Your task to perform on an android device: What's the weather? Image 0: 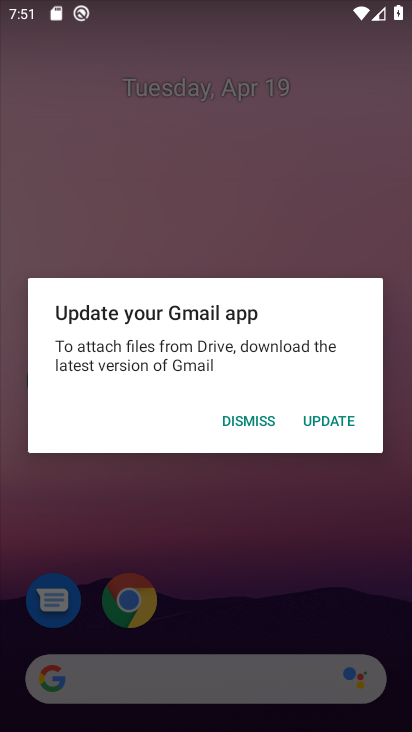
Step 0: press home button
Your task to perform on an android device: What's the weather? Image 1: 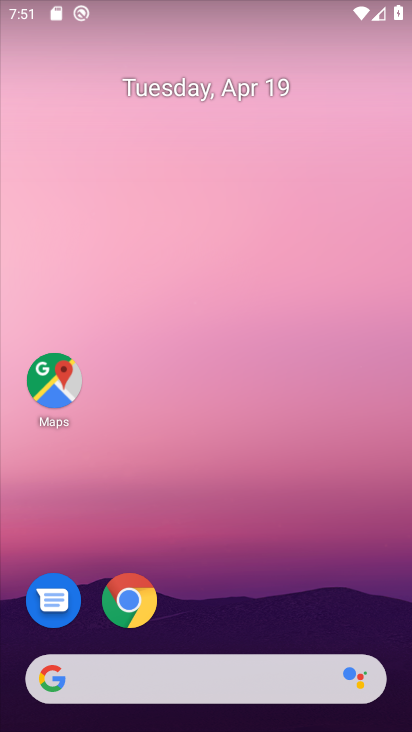
Step 1: click (215, 686)
Your task to perform on an android device: What's the weather? Image 2: 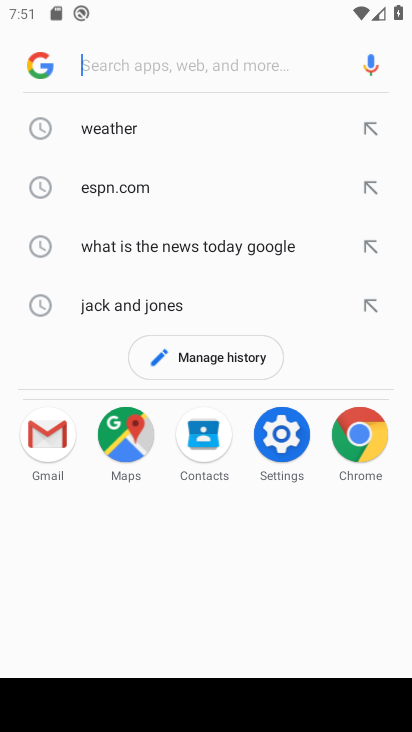
Step 2: click (104, 124)
Your task to perform on an android device: What's the weather? Image 3: 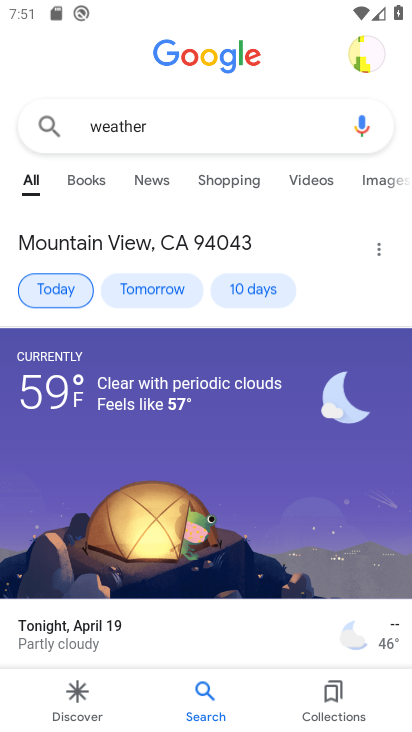
Step 3: task complete